Your task to perform on an android device: Play the last video I watched on Youtube Image 0: 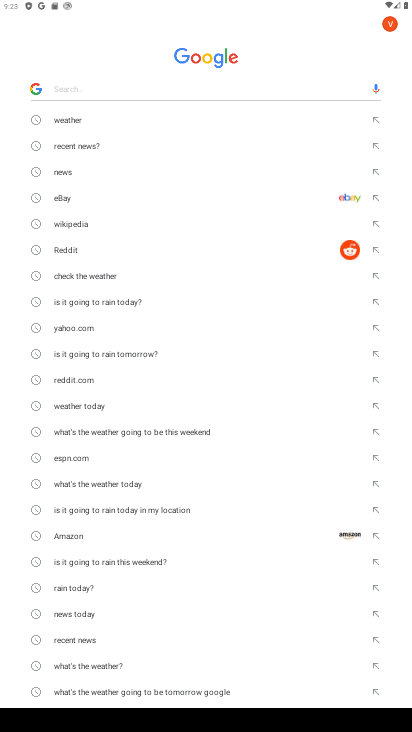
Step 0: press home button
Your task to perform on an android device: Play the last video I watched on Youtube Image 1: 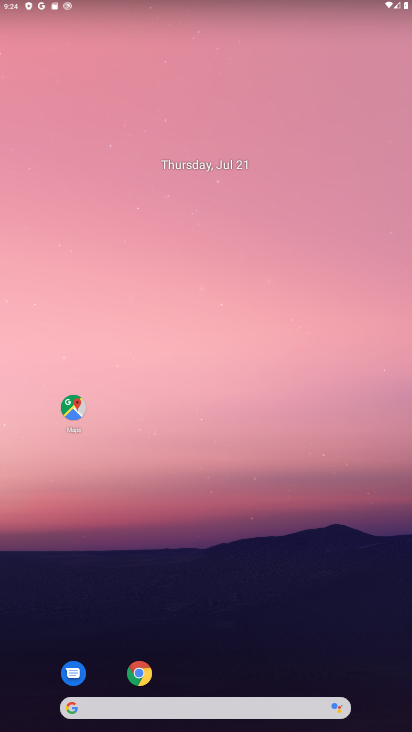
Step 1: drag from (215, 683) to (234, 3)
Your task to perform on an android device: Play the last video I watched on Youtube Image 2: 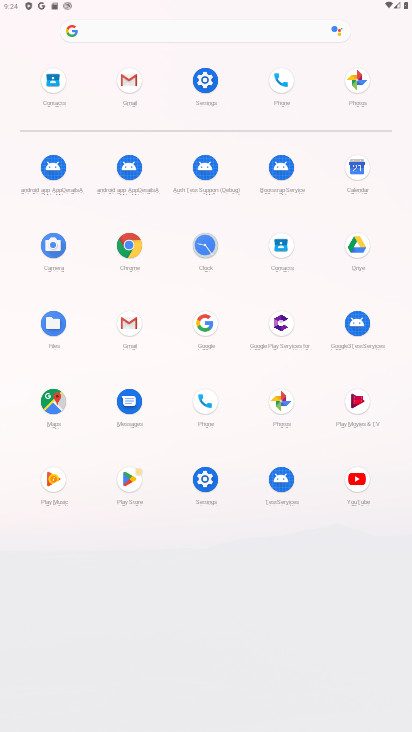
Step 2: click (352, 476)
Your task to perform on an android device: Play the last video I watched on Youtube Image 3: 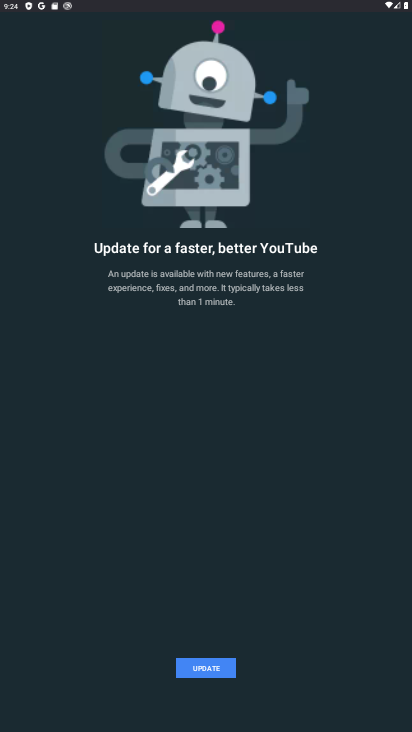
Step 3: click (207, 667)
Your task to perform on an android device: Play the last video I watched on Youtube Image 4: 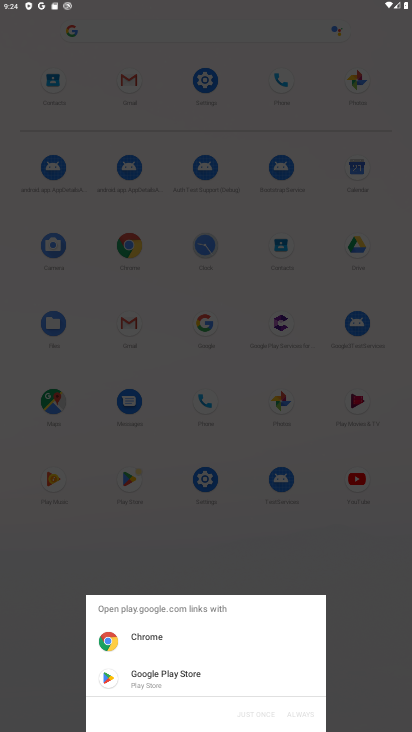
Step 4: click (144, 676)
Your task to perform on an android device: Play the last video I watched on Youtube Image 5: 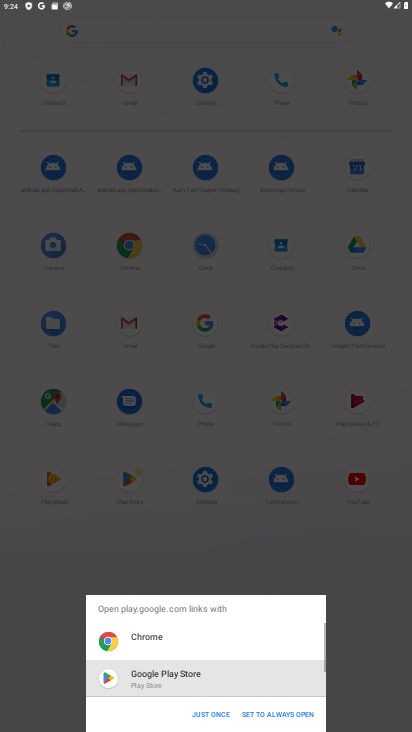
Step 5: click (208, 714)
Your task to perform on an android device: Play the last video I watched on Youtube Image 6: 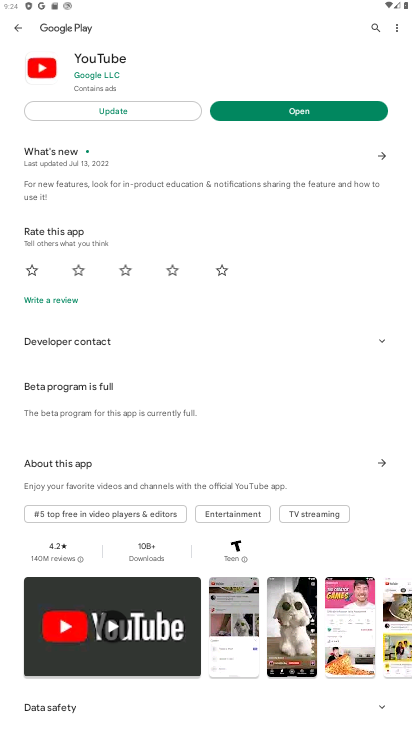
Step 6: click (113, 109)
Your task to perform on an android device: Play the last video I watched on Youtube Image 7: 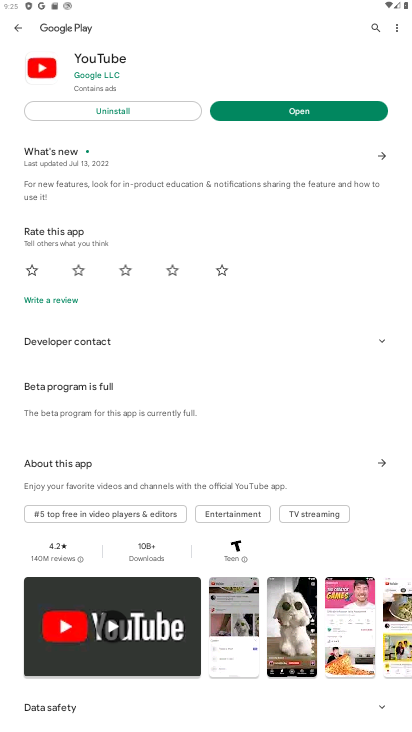
Step 7: click (307, 113)
Your task to perform on an android device: Play the last video I watched on Youtube Image 8: 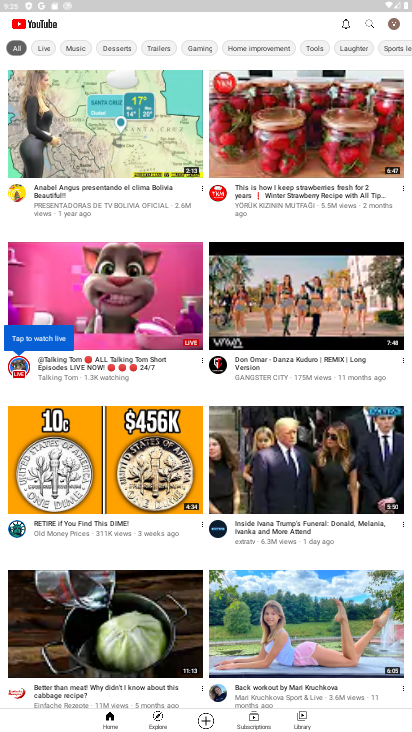
Step 8: click (299, 714)
Your task to perform on an android device: Play the last video I watched on Youtube Image 9: 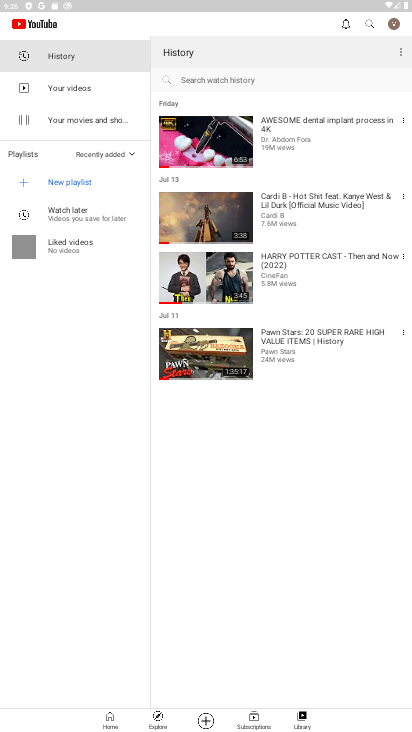
Step 9: click (227, 132)
Your task to perform on an android device: Play the last video I watched on Youtube Image 10: 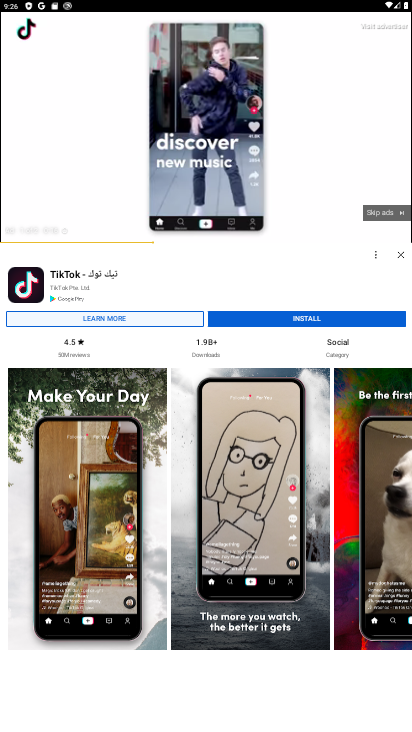
Step 10: task complete